Your task to perform on an android device: Open Chrome and go to settings Image 0: 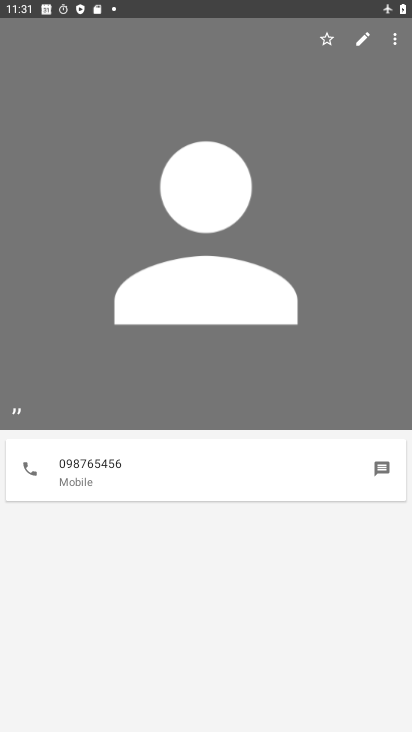
Step 0: press home button
Your task to perform on an android device: Open Chrome and go to settings Image 1: 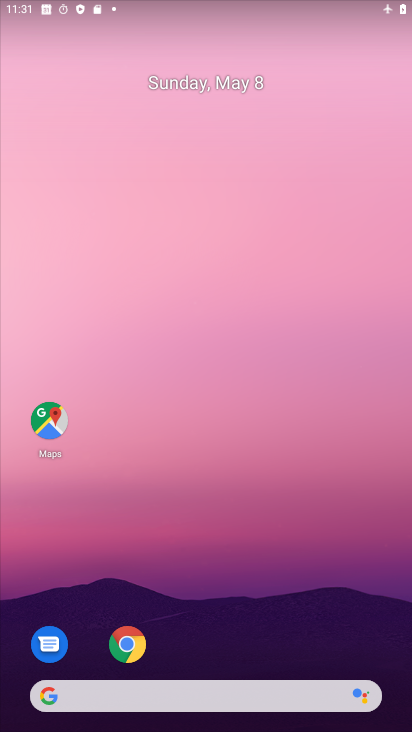
Step 1: click (126, 651)
Your task to perform on an android device: Open Chrome and go to settings Image 2: 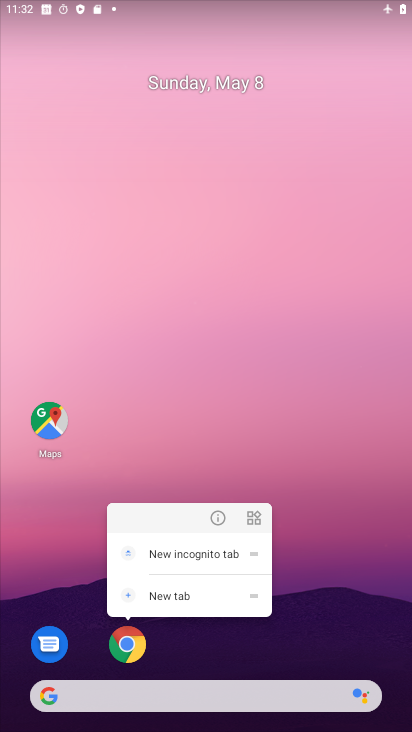
Step 2: click (219, 518)
Your task to perform on an android device: Open Chrome and go to settings Image 3: 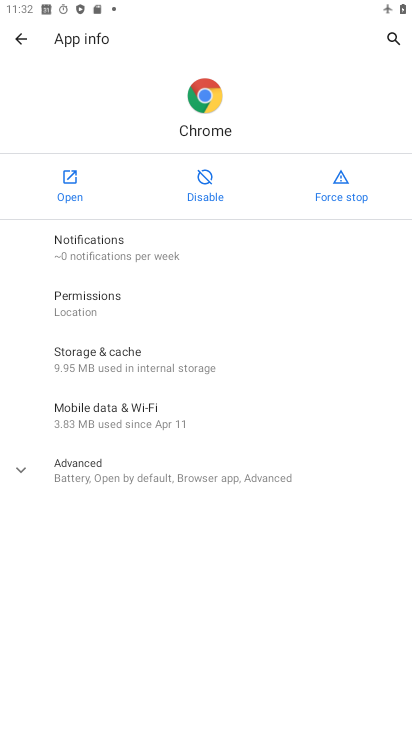
Step 3: click (75, 183)
Your task to perform on an android device: Open Chrome and go to settings Image 4: 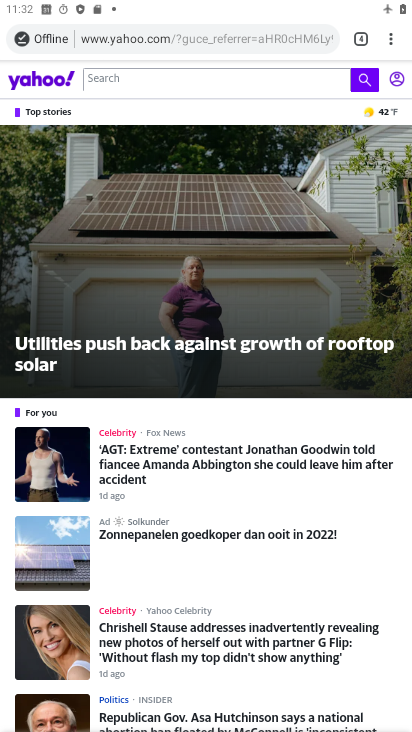
Step 4: click (392, 39)
Your task to perform on an android device: Open Chrome and go to settings Image 5: 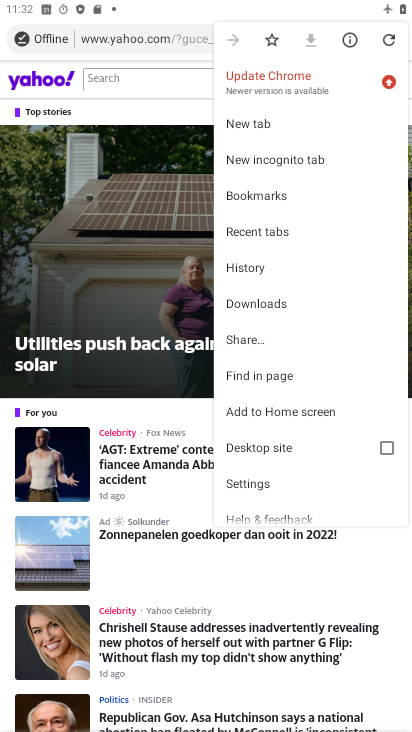
Step 5: click (267, 475)
Your task to perform on an android device: Open Chrome and go to settings Image 6: 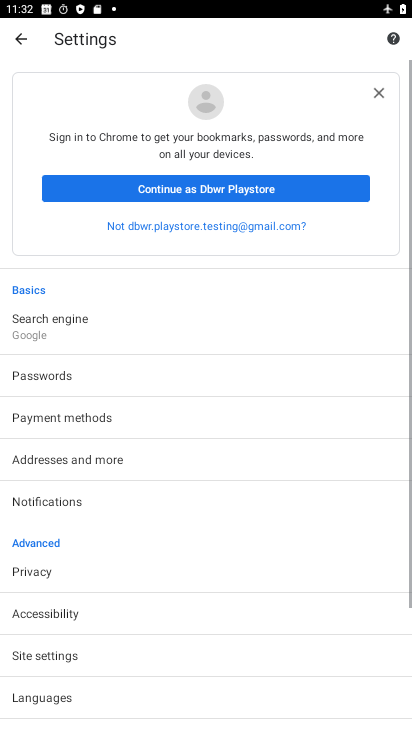
Step 6: task complete